Your task to perform on an android device: toggle notifications settings in the gmail app Image 0: 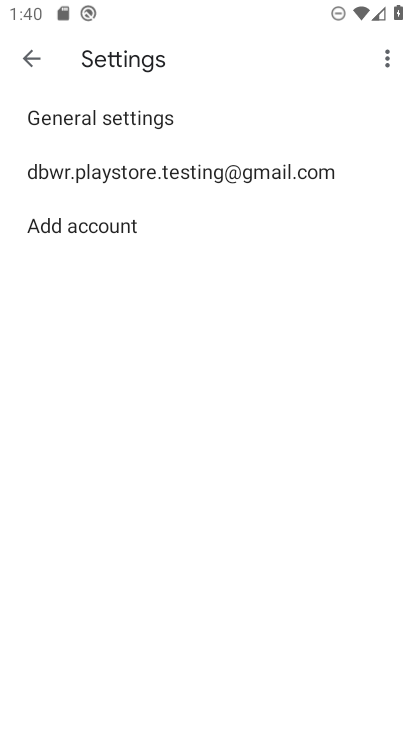
Step 0: press home button
Your task to perform on an android device: toggle notifications settings in the gmail app Image 1: 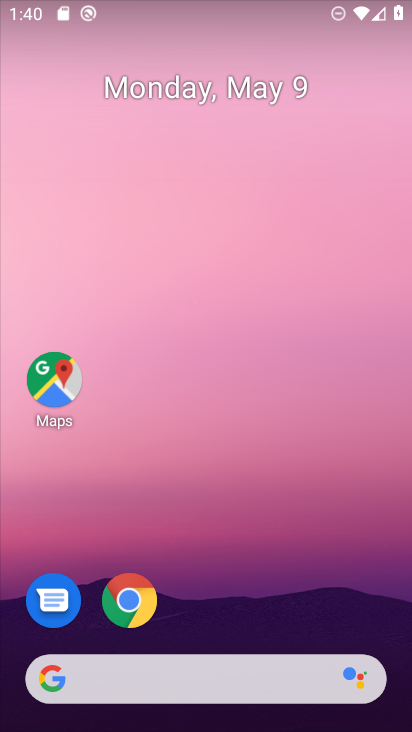
Step 1: drag from (193, 676) to (333, 24)
Your task to perform on an android device: toggle notifications settings in the gmail app Image 2: 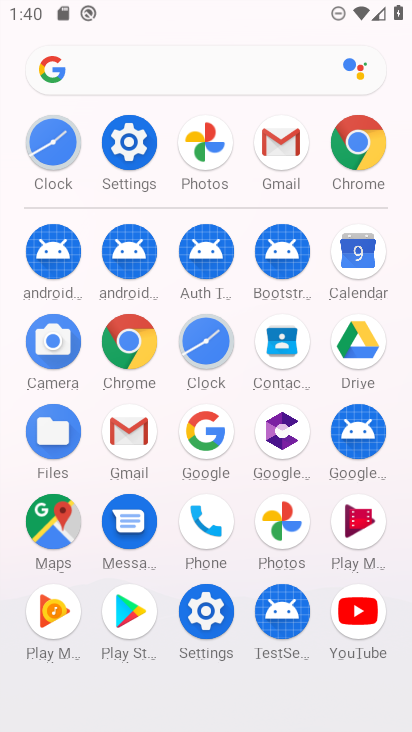
Step 2: click (275, 151)
Your task to perform on an android device: toggle notifications settings in the gmail app Image 3: 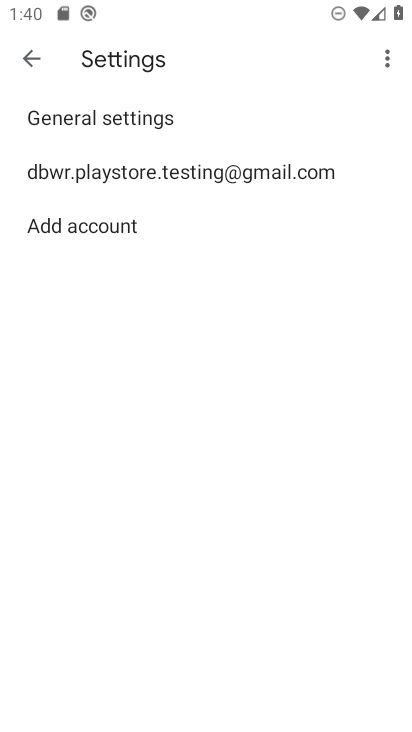
Step 3: click (229, 171)
Your task to perform on an android device: toggle notifications settings in the gmail app Image 4: 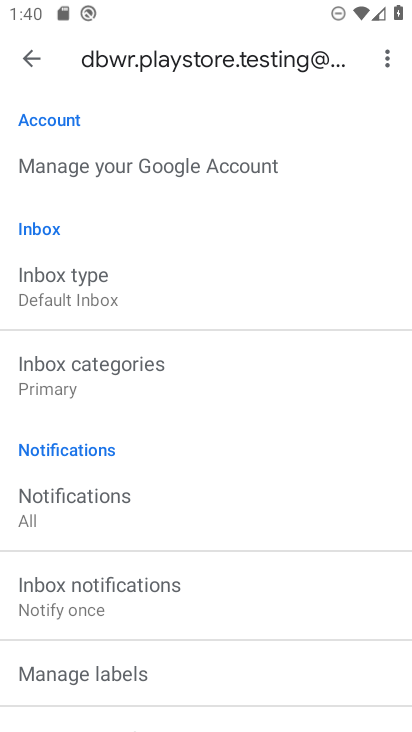
Step 4: click (48, 496)
Your task to perform on an android device: toggle notifications settings in the gmail app Image 5: 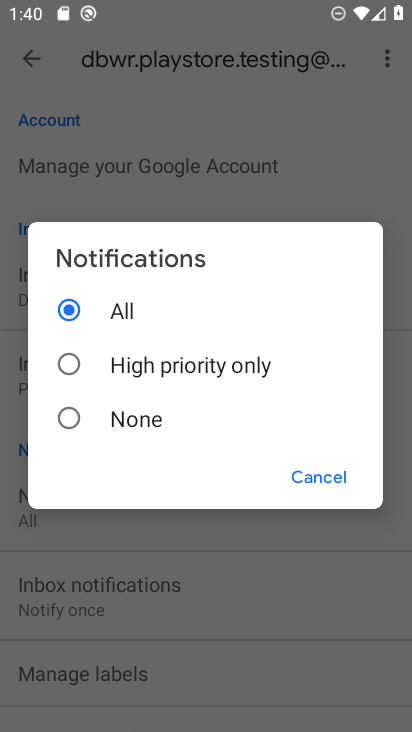
Step 5: click (74, 411)
Your task to perform on an android device: toggle notifications settings in the gmail app Image 6: 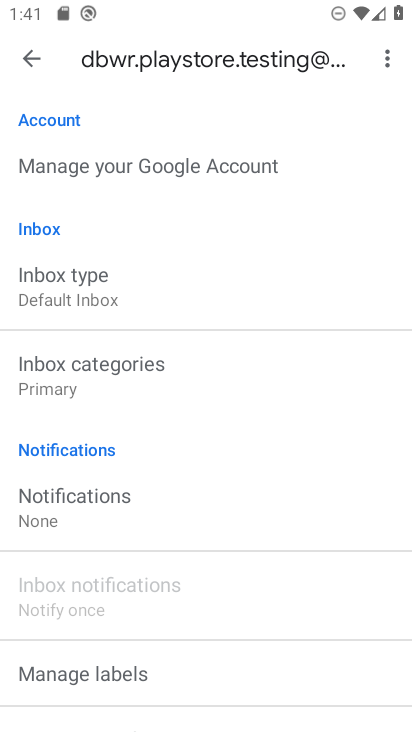
Step 6: task complete